Your task to perform on an android device: Open Google Maps Image 0: 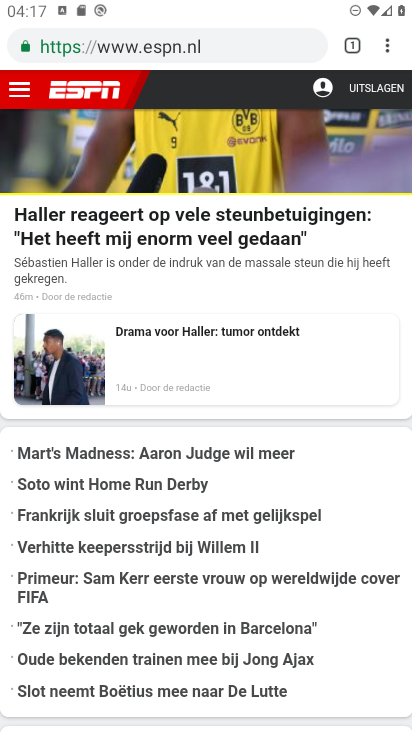
Step 0: press home button
Your task to perform on an android device: Open Google Maps Image 1: 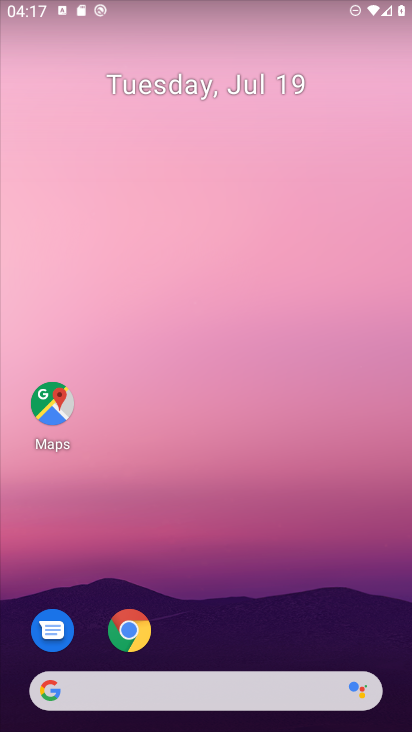
Step 1: click (55, 404)
Your task to perform on an android device: Open Google Maps Image 2: 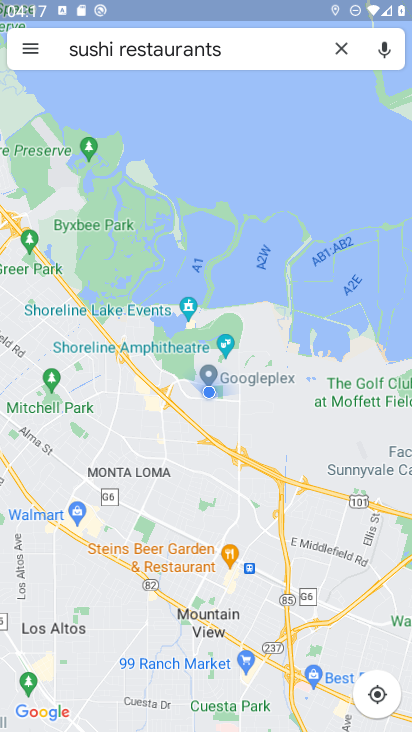
Step 2: click (340, 46)
Your task to perform on an android device: Open Google Maps Image 3: 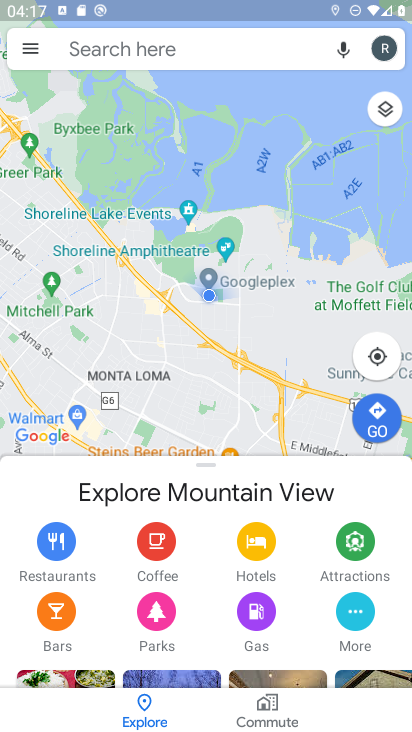
Step 3: task complete